Your task to perform on an android device: set default search engine in the chrome app Image 0: 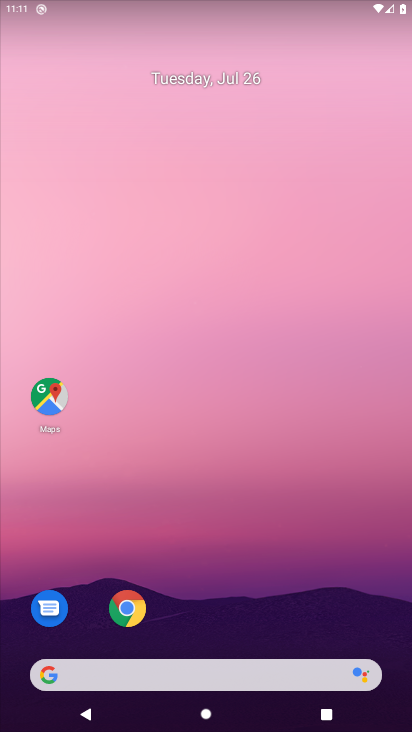
Step 0: drag from (168, 635) to (190, 101)
Your task to perform on an android device: set default search engine in the chrome app Image 1: 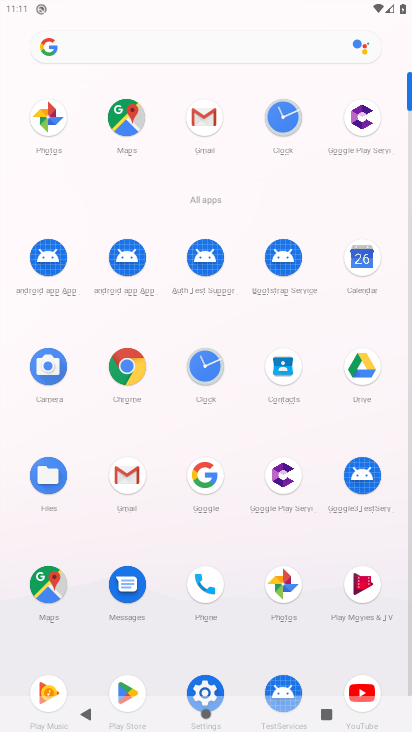
Step 1: click (118, 363)
Your task to perform on an android device: set default search engine in the chrome app Image 2: 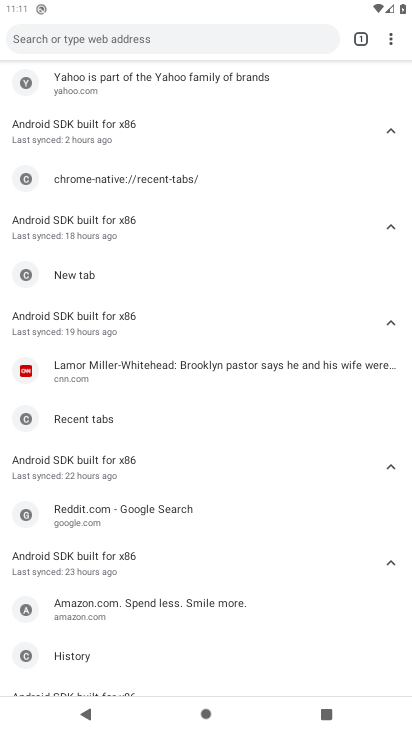
Step 2: drag from (393, 34) to (269, 332)
Your task to perform on an android device: set default search engine in the chrome app Image 3: 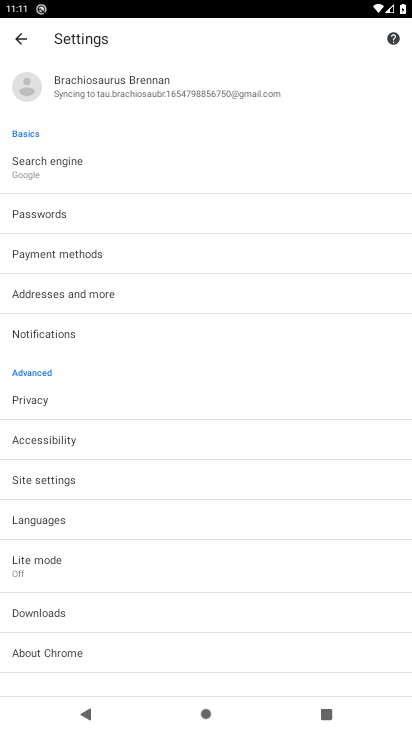
Step 3: click (67, 169)
Your task to perform on an android device: set default search engine in the chrome app Image 4: 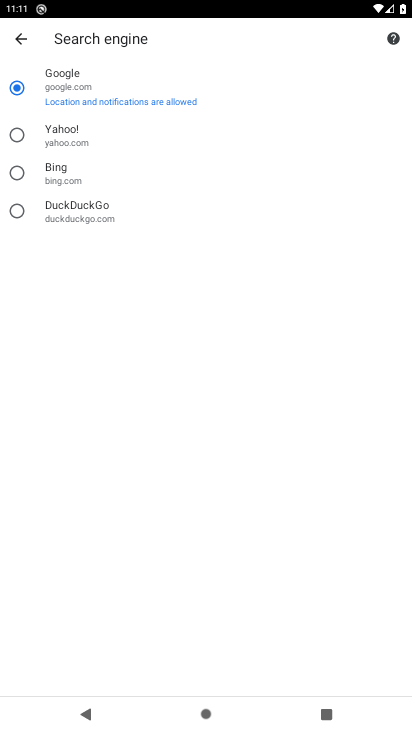
Step 4: task complete